Your task to perform on an android device: Open battery settings Image 0: 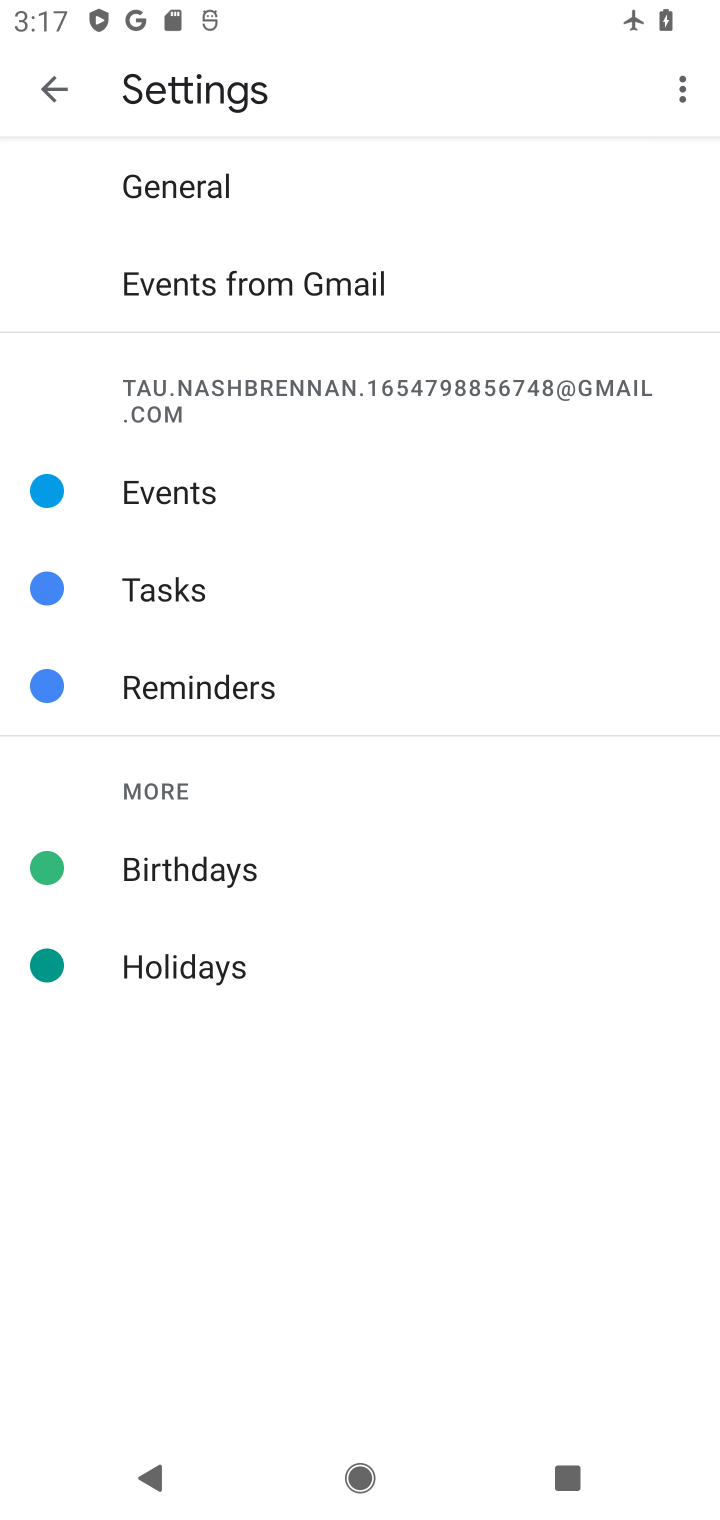
Step 0: press home button
Your task to perform on an android device: Open battery settings Image 1: 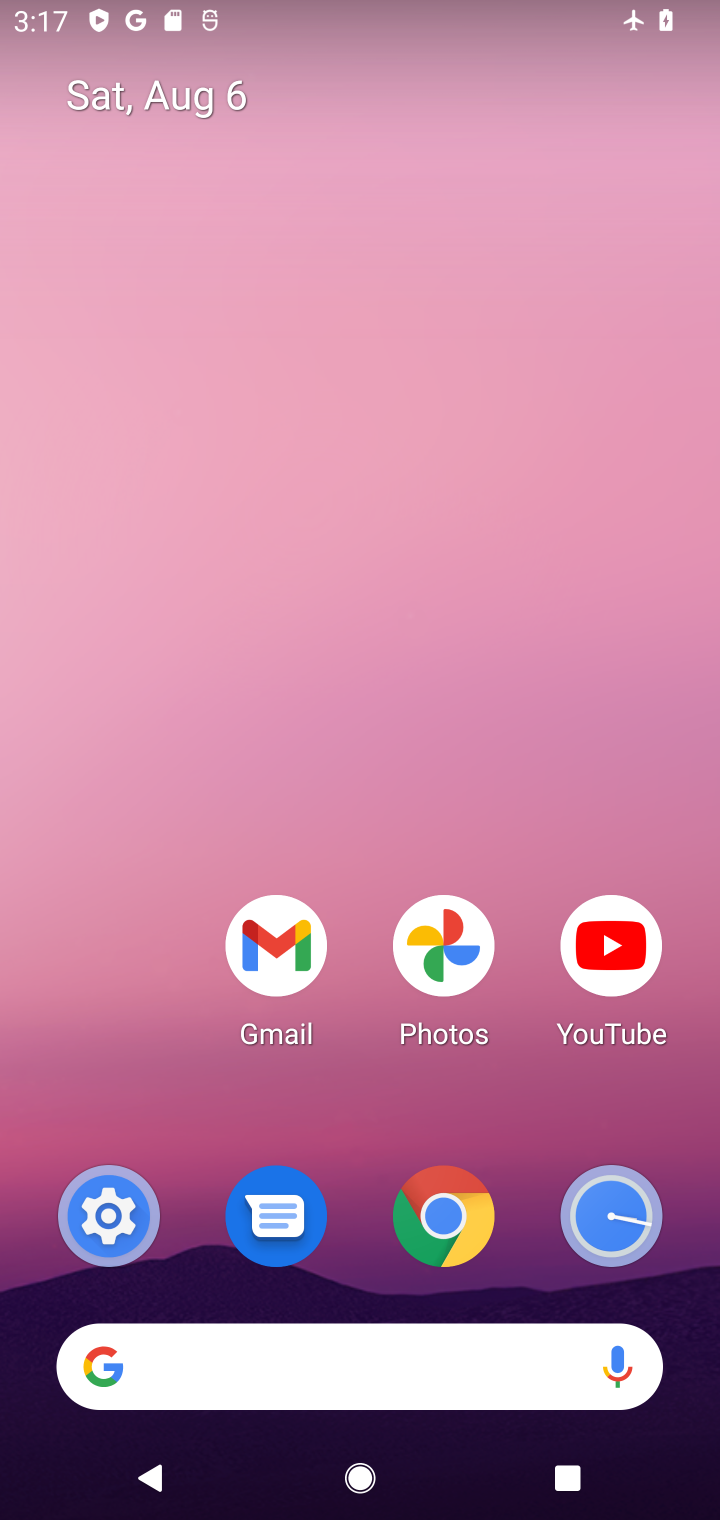
Step 1: click (87, 1210)
Your task to perform on an android device: Open battery settings Image 2: 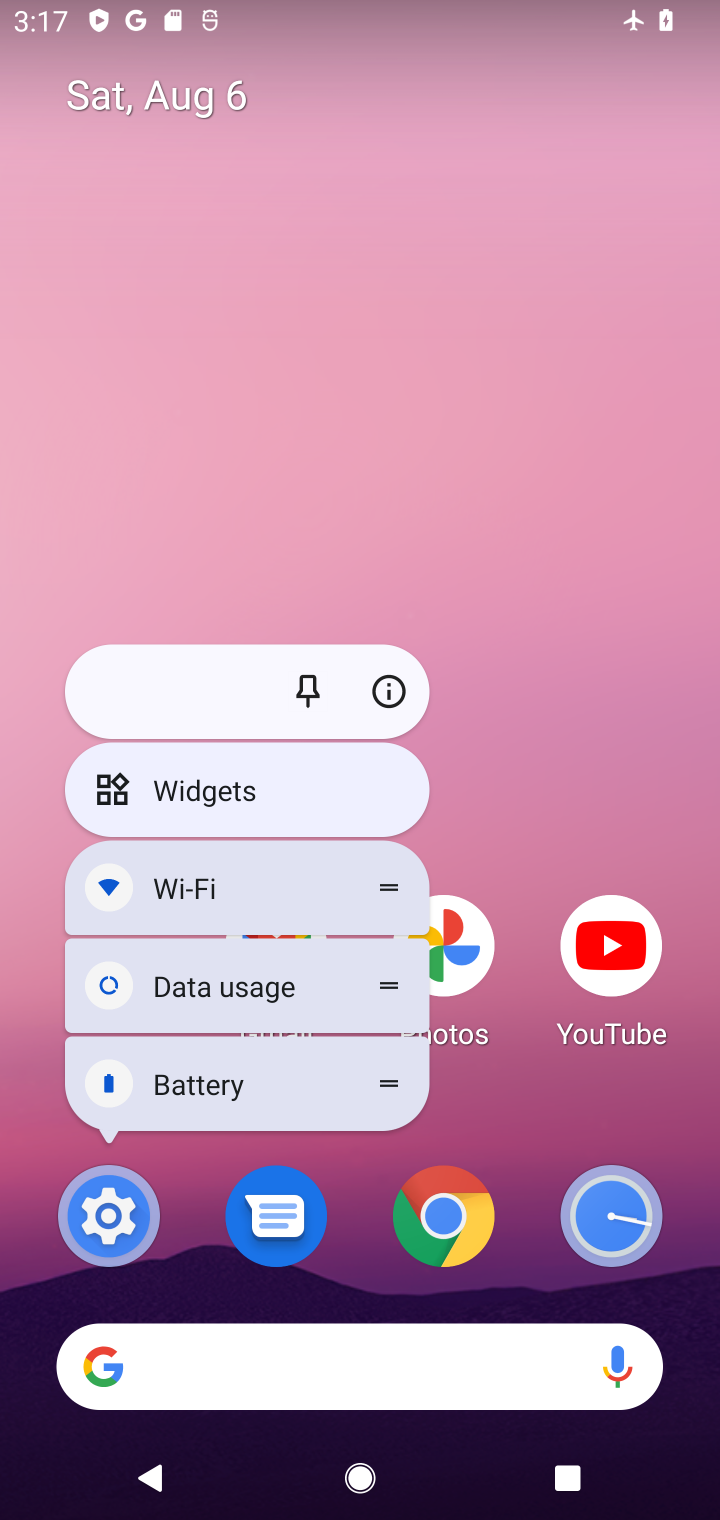
Step 2: click (111, 1226)
Your task to perform on an android device: Open battery settings Image 3: 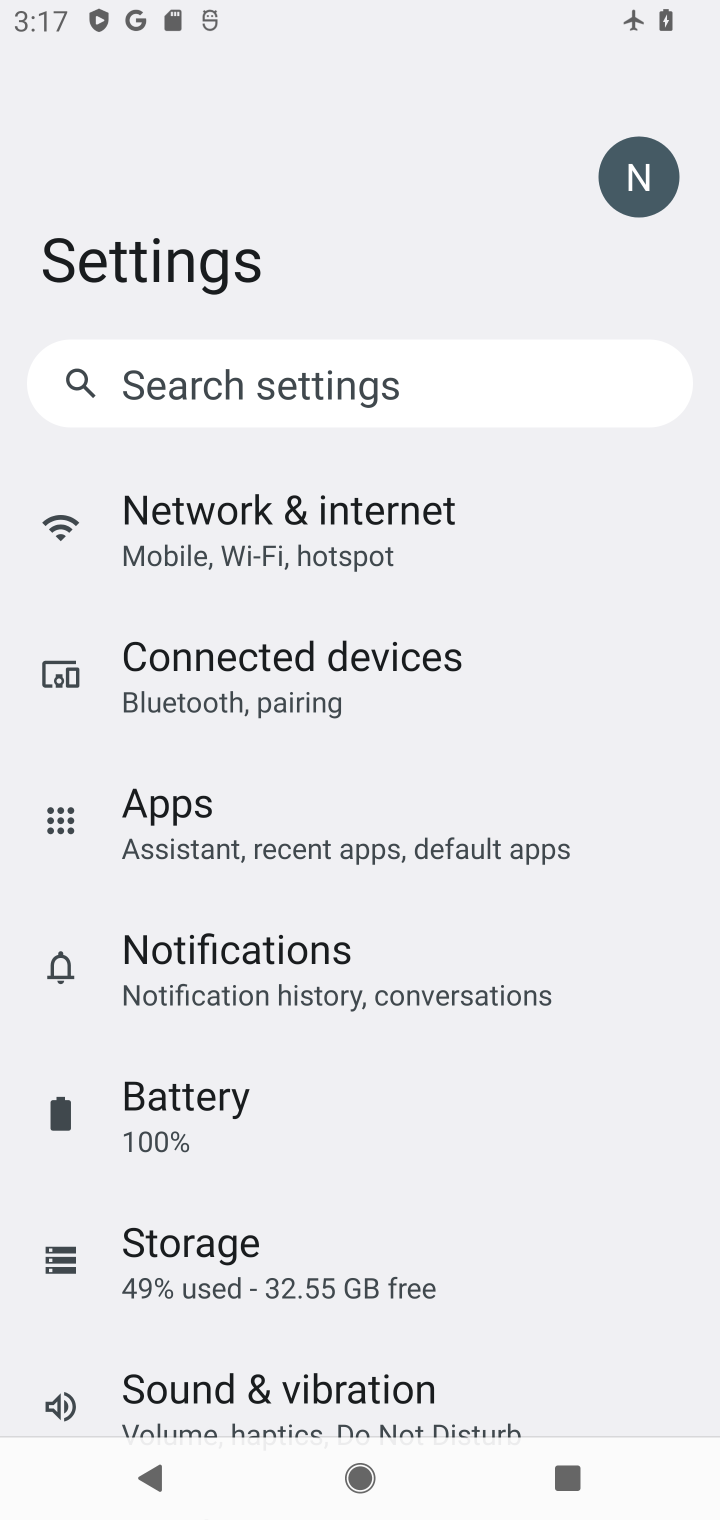
Step 3: click (207, 1112)
Your task to perform on an android device: Open battery settings Image 4: 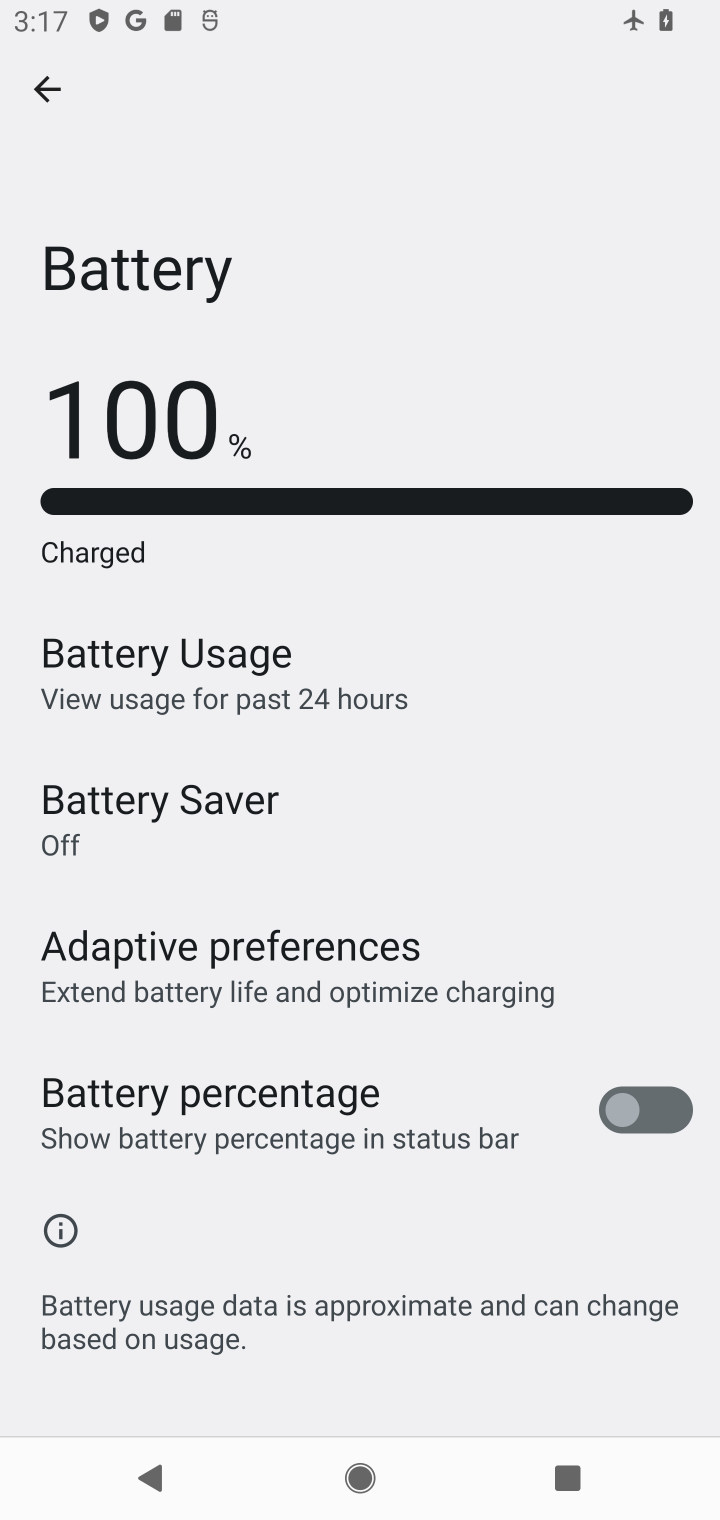
Step 4: task complete